Your task to perform on an android device: Open maps Image 0: 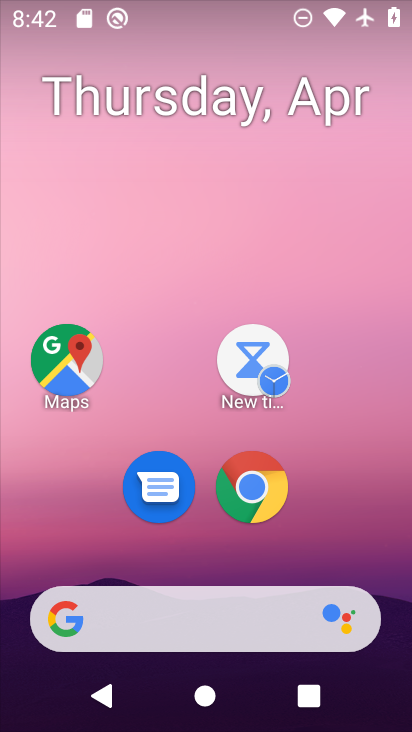
Step 0: click (69, 356)
Your task to perform on an android device: Open maps Image 1: 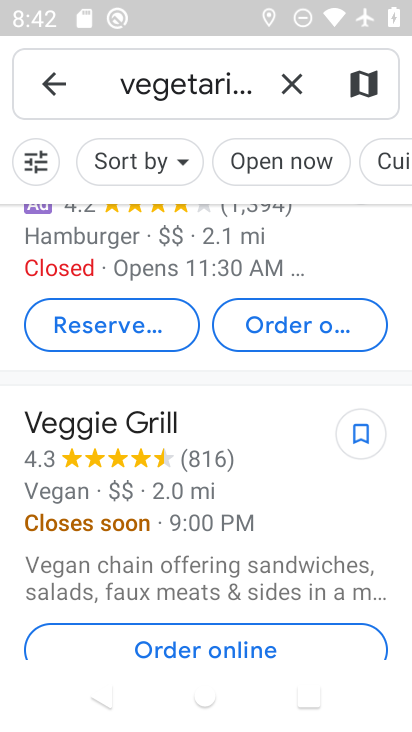
Step 1: click (54, 81)
Your task to perform on an android device: Open maps Image 2: 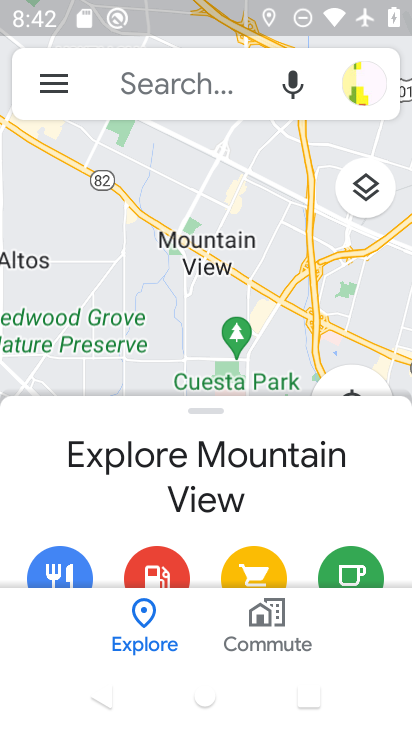
Step 2: task complete